Your task to perform on an android device: turn off sleep mode Image 0: 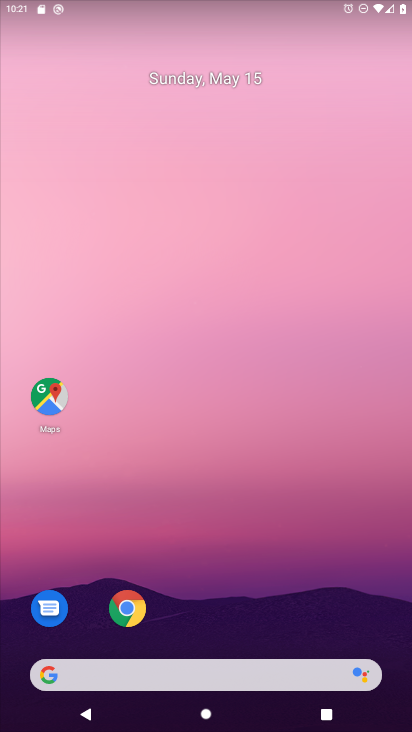
Step 0: drag from (341, 622) to (330, 97)
Your task to perform on an android device: turn off sleep mode Image 1: 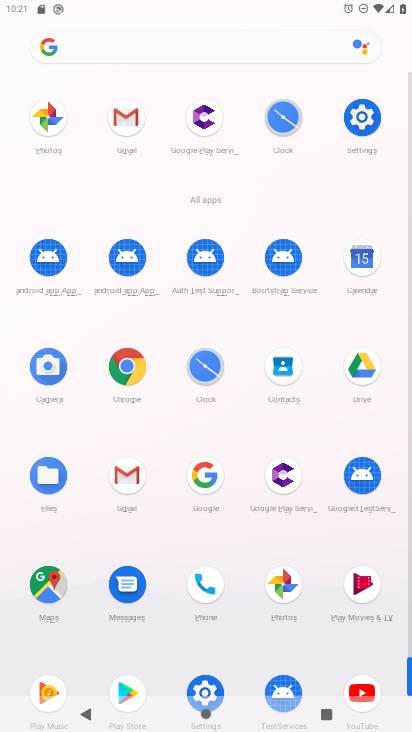
Step 1: click (364, 119)
Your task to perform on an android device: turn off sleep mode Image 2: 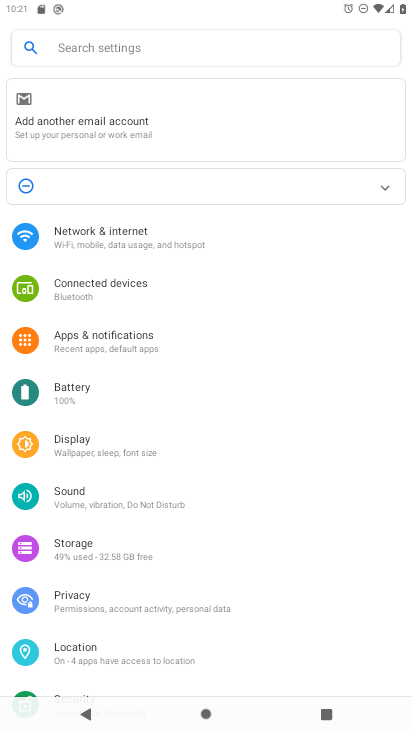
Step 2: click (190, 62)
Your task to perform on an android device: turn off sleep mode Image 3: 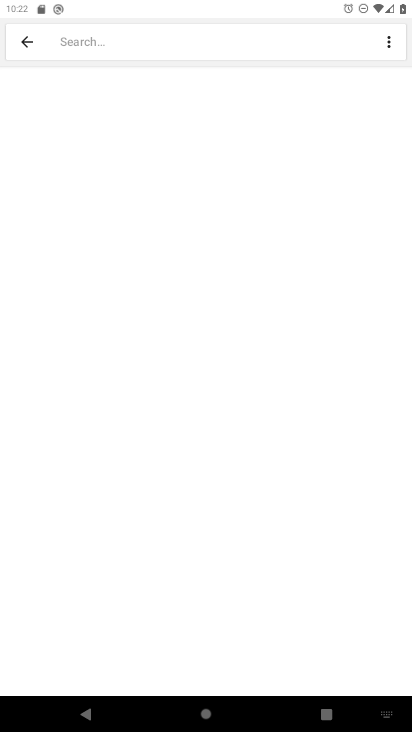
Step 3: type "sleep mode"
Your task to perform on an android device: turn off sleep mode Image 4: 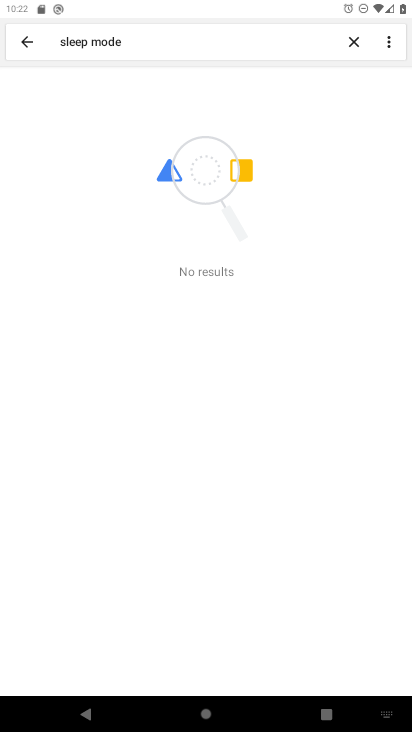
Step 4: task complete